Your task to perform on an android device: check storage Image 0: 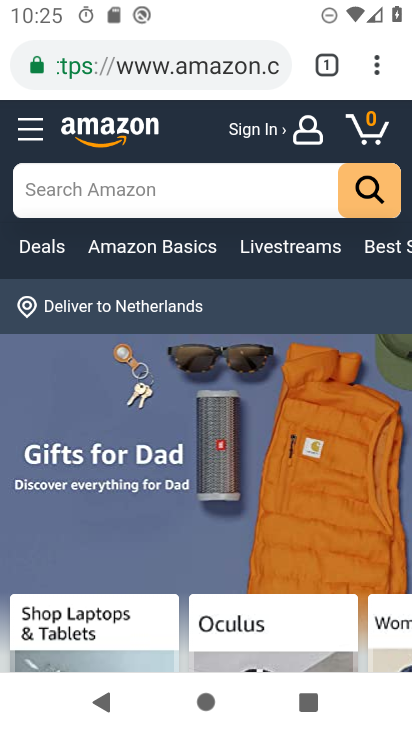
Step 0: press home button
Your task to perform on an android device: check storage Image 1: 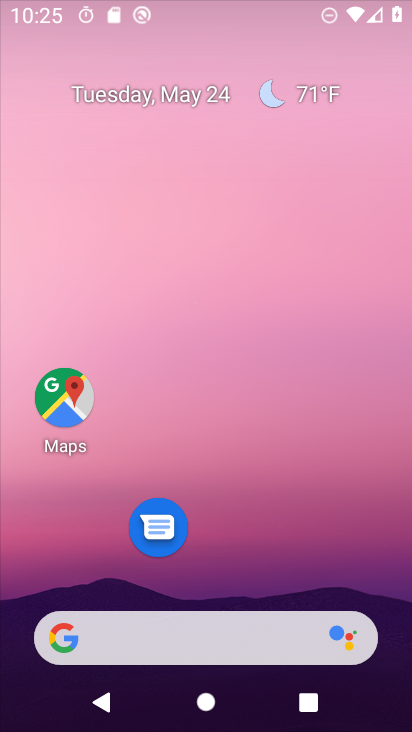
Step 1: drag from (254, 552) to (391, 39)
Your task to perform on an android device: check storage Image 2: 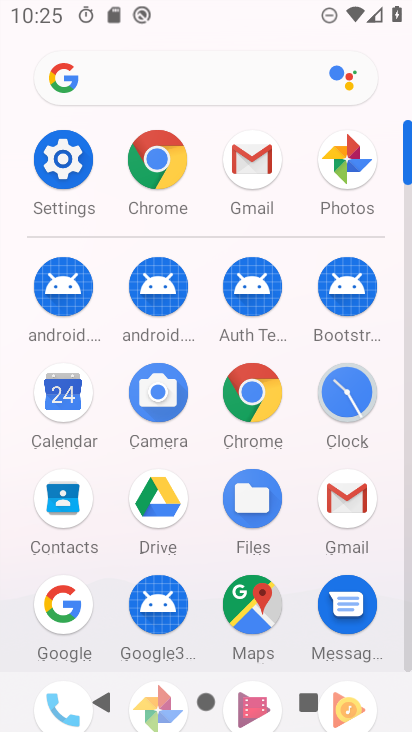
Step 2: click (68, 157)
Your task to perform on an android device: check storage Image 3: 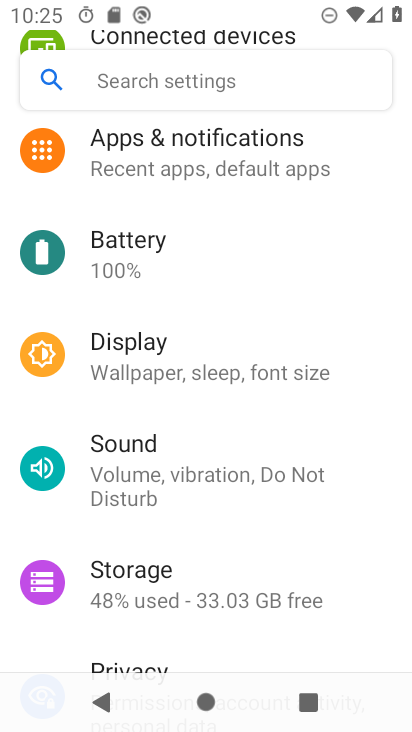
Step 3: click (147, 585)
Your task to perform on an android device: check storage Image 4: 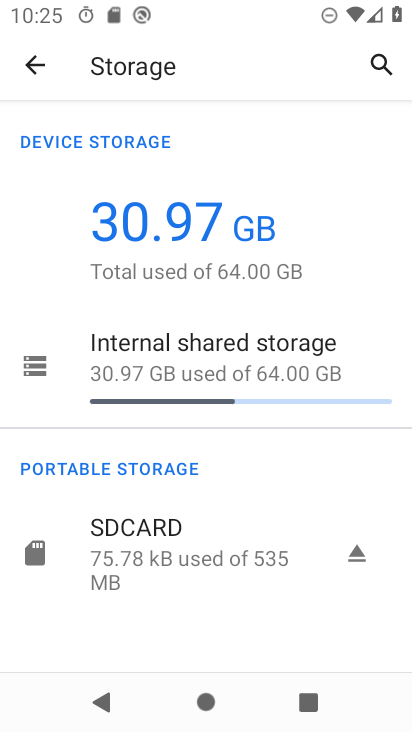
Step 4: task complete